Your task to perform on an android device: create a new album in the google photos Image 0: 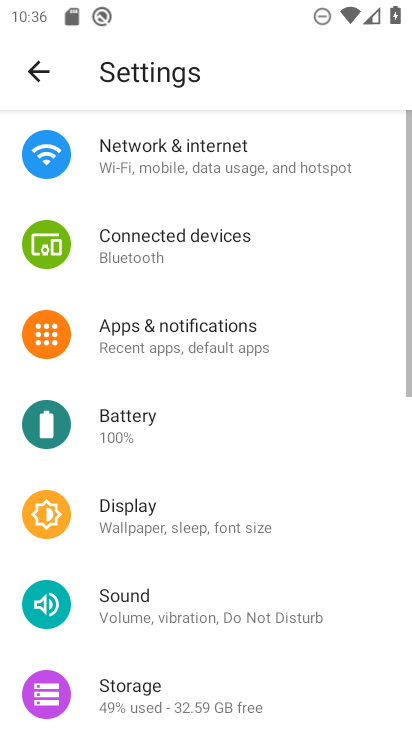
Step 0: press home button
Your task to perform on an android device: create a new album in the google photos Image 1: 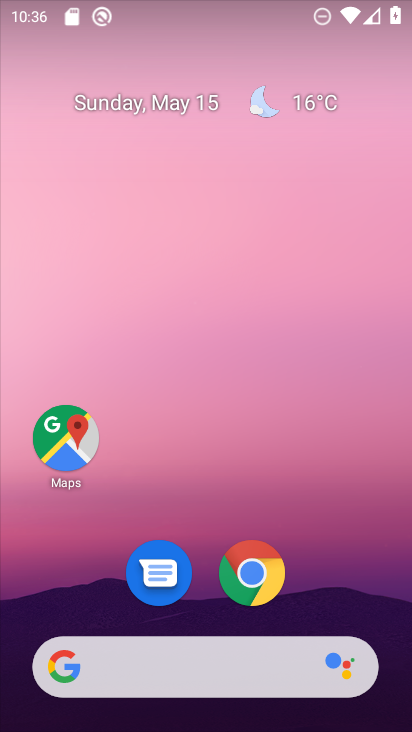
Step 1: drag from (349, 566) to (335, 57)
Your task to perform on an android device: create a new album in the google photos Image 2: 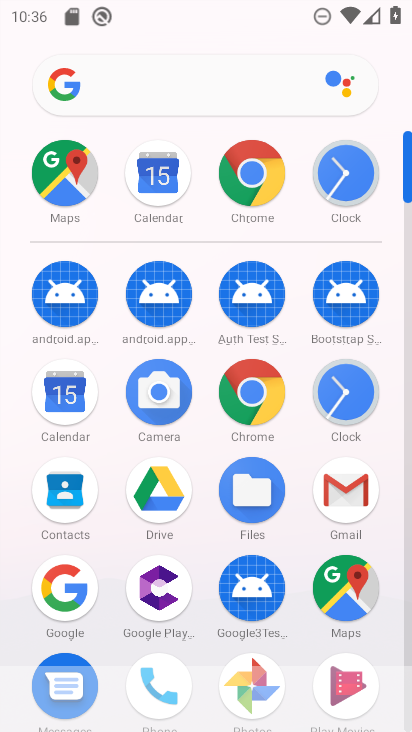
Step 2: click (252, 658)
Your task to perform on an android device: create a new album in the google photos Image 3: 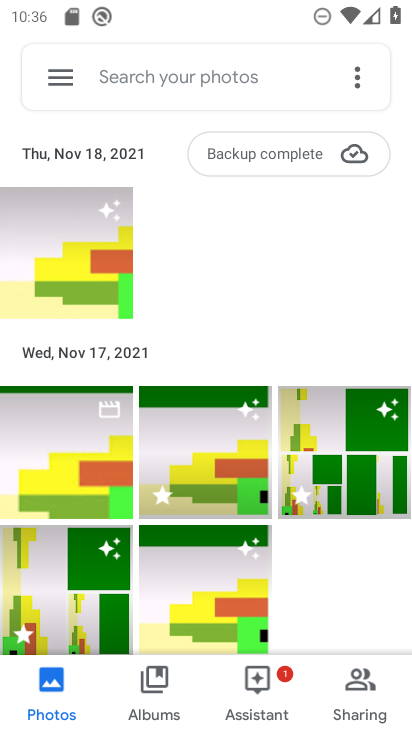
Step 3: click (53, 283)
Your task to perform on an android device: create a new album in the google photos Image 4: 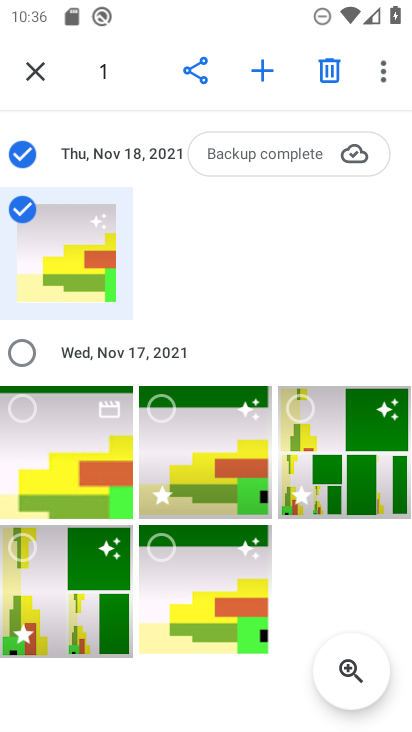
Step 4: click (53, 483)
Your task to perform on an android device: create a new album in the google photos Image 5: 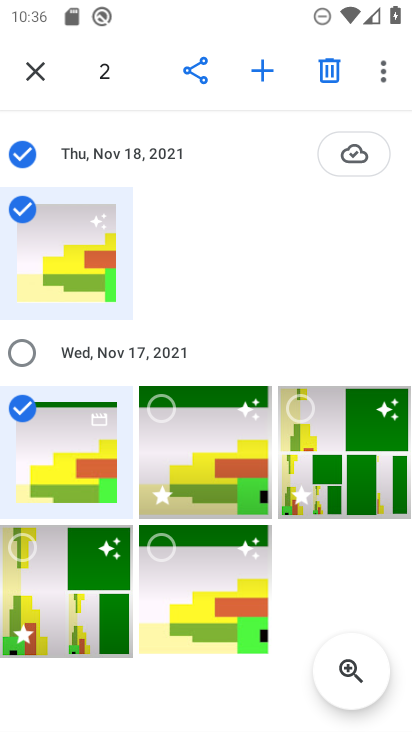
Step 5: click (57, 570)
Your task to perform on an android device: create a new album in the google photos Image 6: 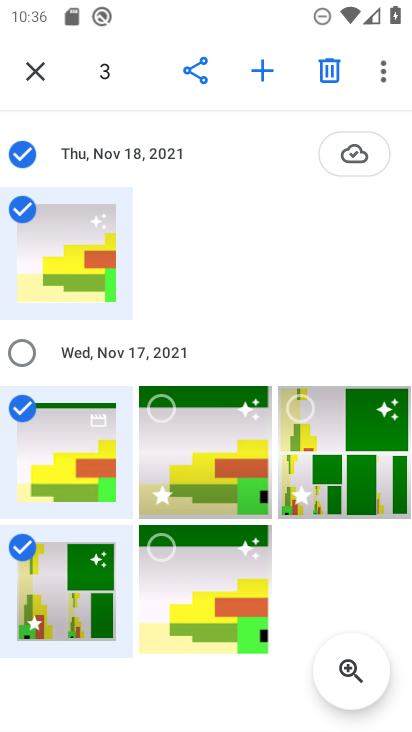
Step 6: click (260, 80)
Your task to perform on an android device: create a new album in the google photos Image 7: 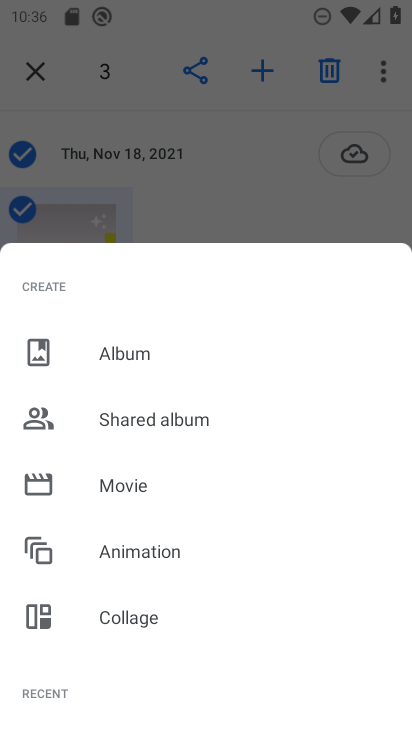
Step 7: click (156, 363)
Your task to perform on an android device: create a new album in the google photos Image 8: 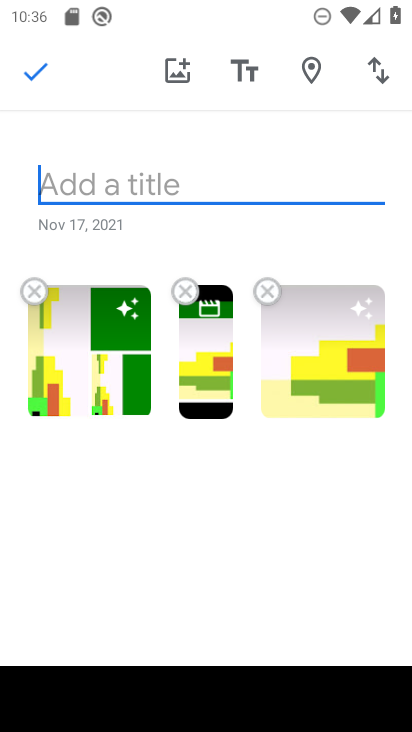
Step 8: type "nmb"
Your task to perform on an android device: create a new album in the google photos Image 9: 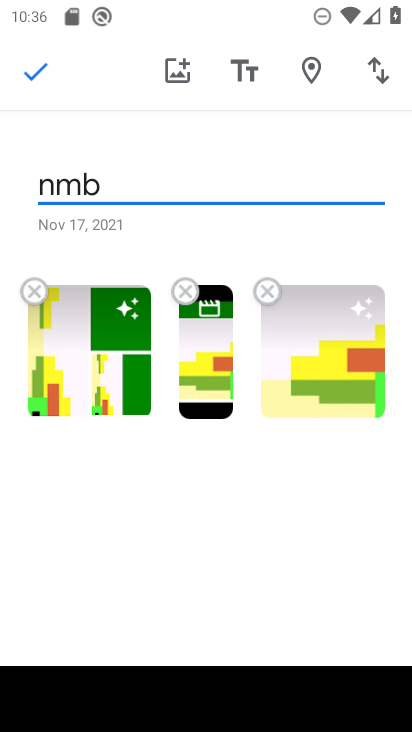
Step 9: click (34, 78)
Your task to perform on an android device: create a new album in the google photos Image 10: 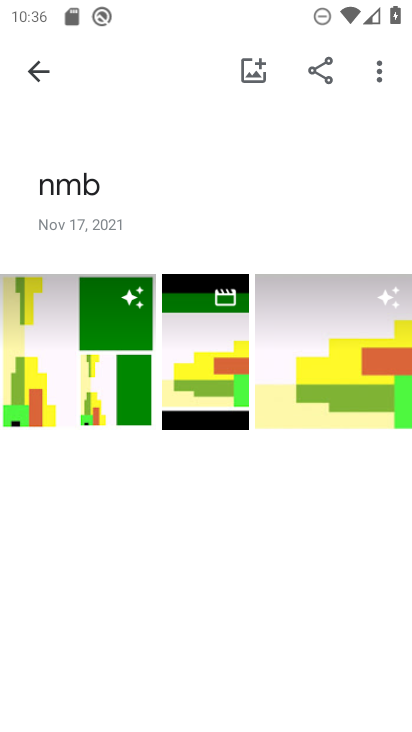
Step 10: task complete